Your task to perform on an android device: Go to sound settings Image 0: 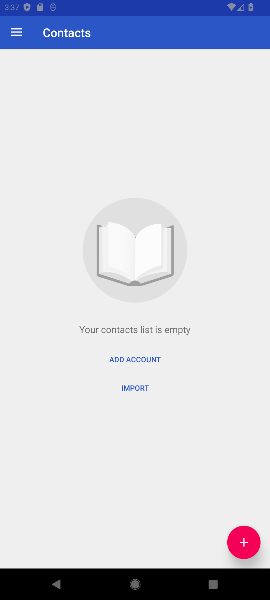
Step 0: press home button
Your task to perform on an android device: Go to sound settings Image 1: 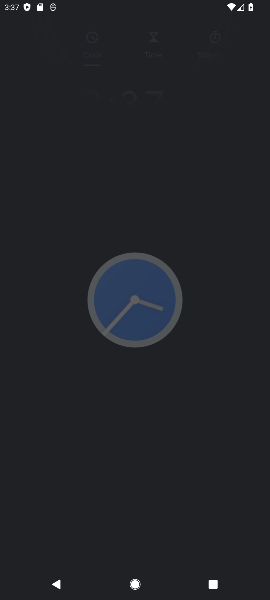
Step 1: press home button
Your task to perform on an android device: Go to sound settings Image 2: 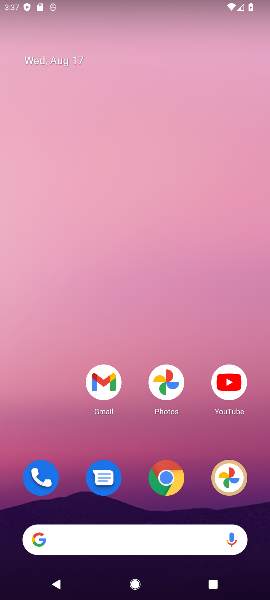
Step 2: drag from (139, 433) to (150, 0)
Your task to perform on an android device: Go to sound settings Image 3: 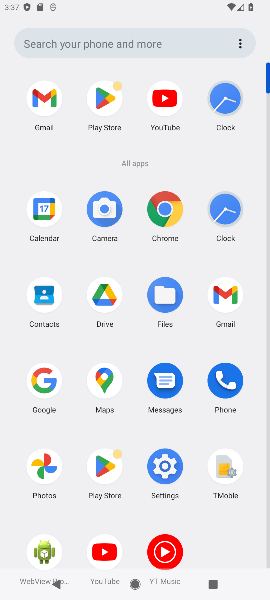
Step 3: click (164, 465)
Your task to perform on an android device: Go to sound settings Image 4: 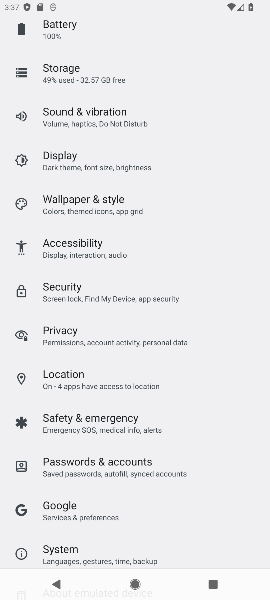
Step 4: click (73, 113)
Your task to perform on an android device: Go to sound settings Image 5: 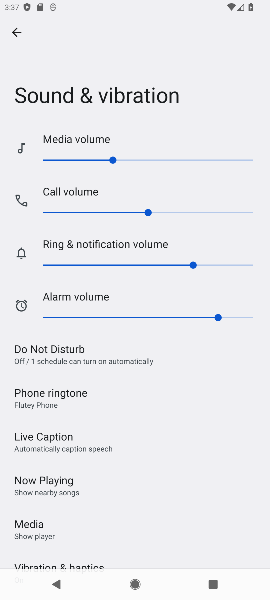
Step 5: task complete